Your task to perform on an android device: set an alarm Image 0: 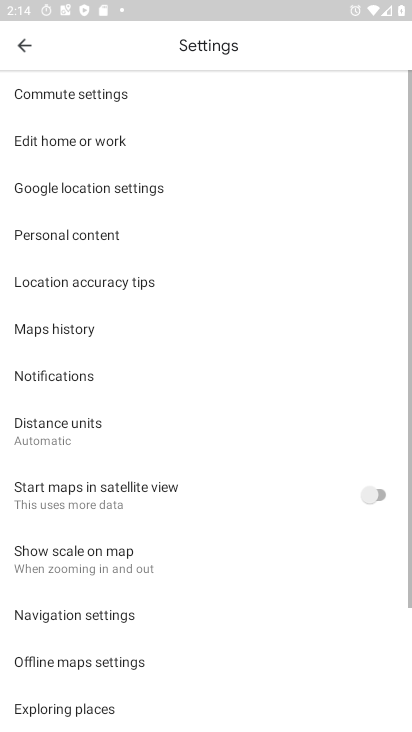
Step 0: press home button
Your task to perform on an android device: set an alarm Image 1: 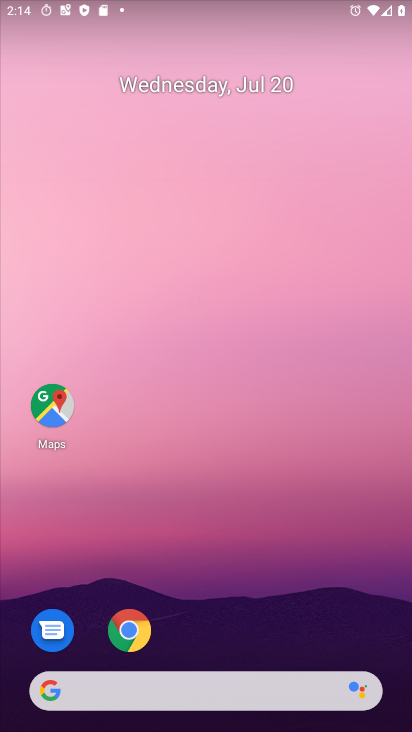
Step 1: drag from (177, 684) to (302, 64)
Your task to perform on an android device: set an alarm Image 2: 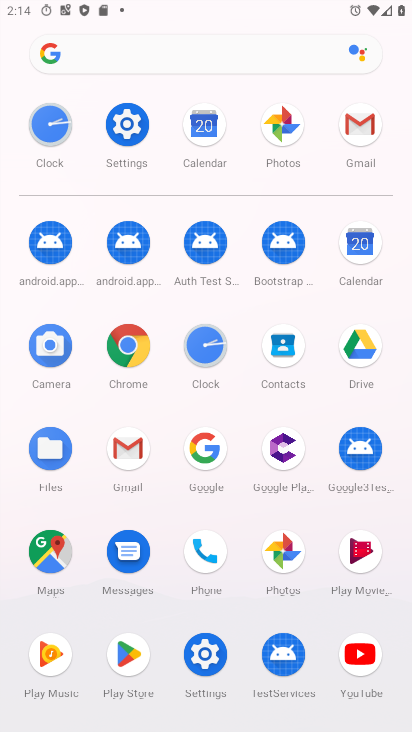
Step 2: click (207, 348)
Your task to perform on an android device: set an alarm Image 3: 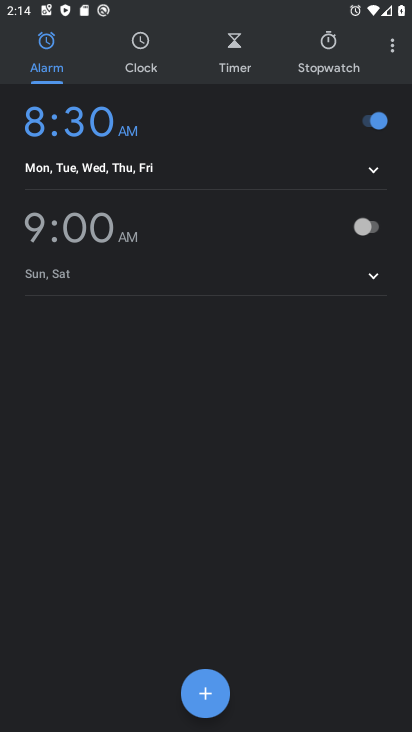
Step 3: click (372, 230)
Your task to perform on an android device: set an alarm Image 4: 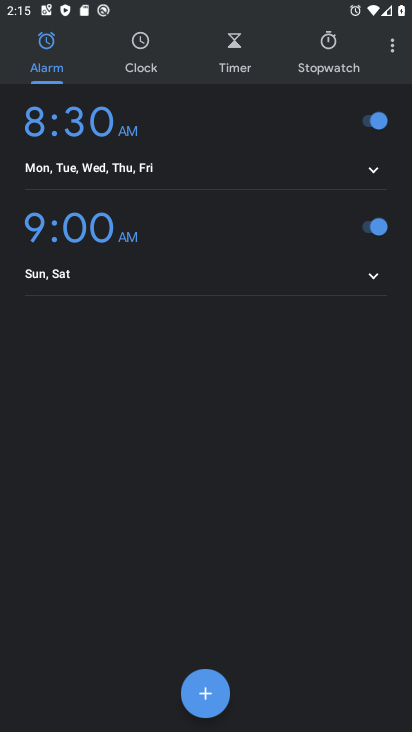
Step 4: task complete